Your task to perform on an android device: manage bookmarks in the chrome app Image 0: 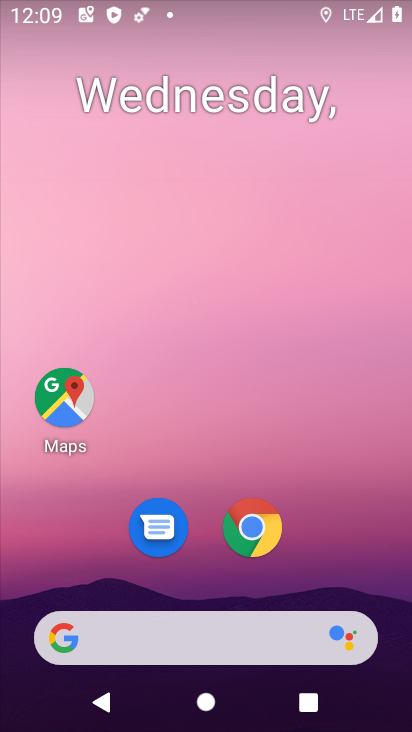
Step 0: drag from (284, 405) to (257, 34)
Your task to perform on an android device: manage bookmarks in the chrome app Image 1: 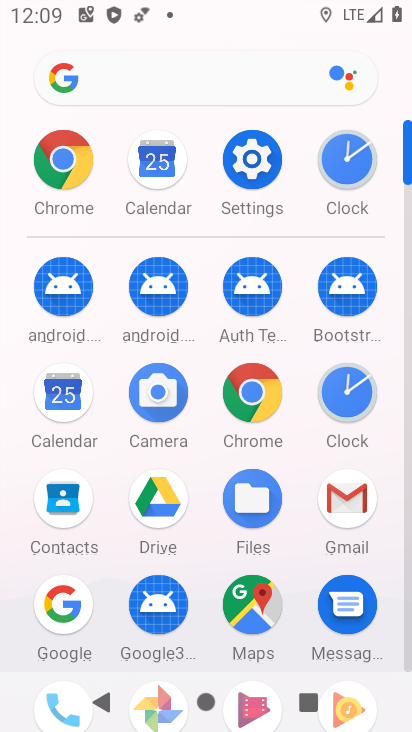
Step 1: click (242, 385)
Your task to perform on an android device: manage bookmarks in the chrome app Image 2: 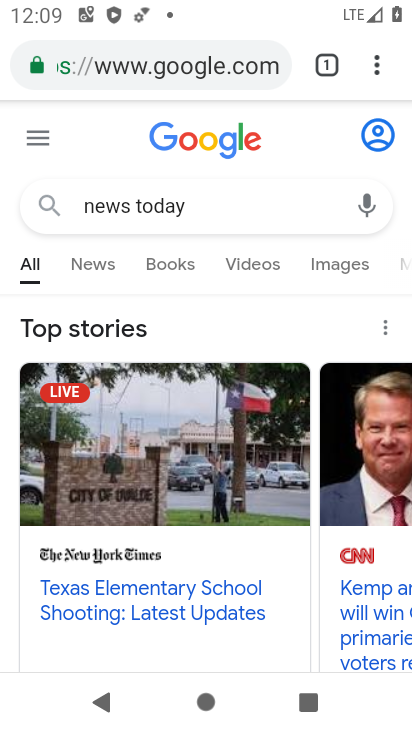
Step 2: task complete